Your task to perform on an android device: toggle airplane mode Image 0: 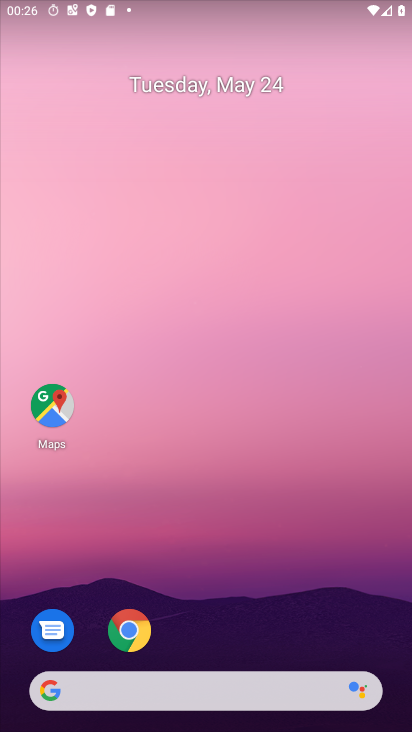
Step 0: drag from (246, 666) to (347, 1)
Your task to perform on an android device: toggle airplane mode Image 1: 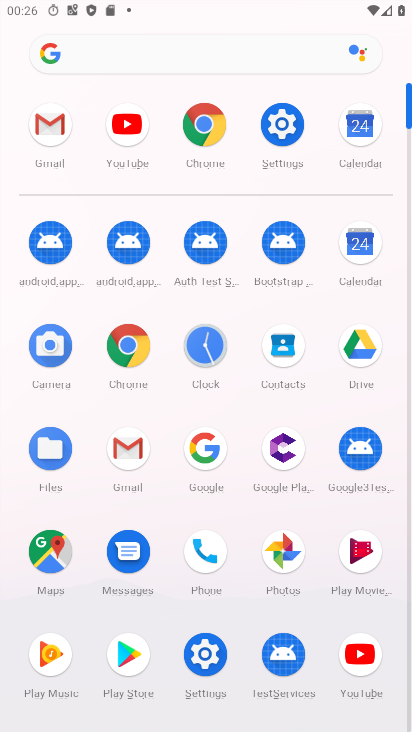
Step 1: click (277, 120)
Your task to perform on an android device: toggle airplane mode Image 2: 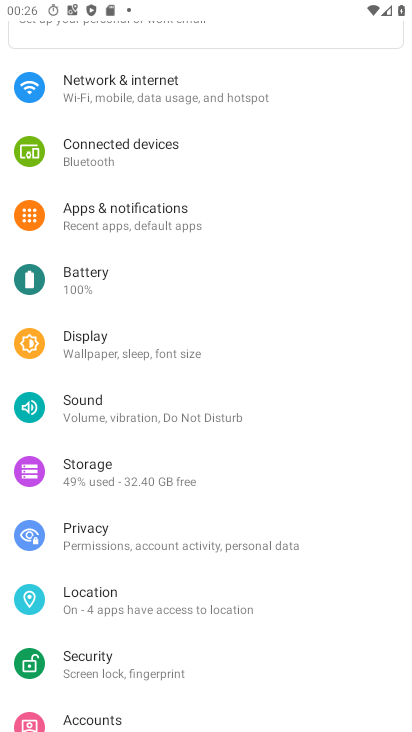
Step 2: click (151, 93)
Your task to perform on an android device: toggle airplane mode Image 3: 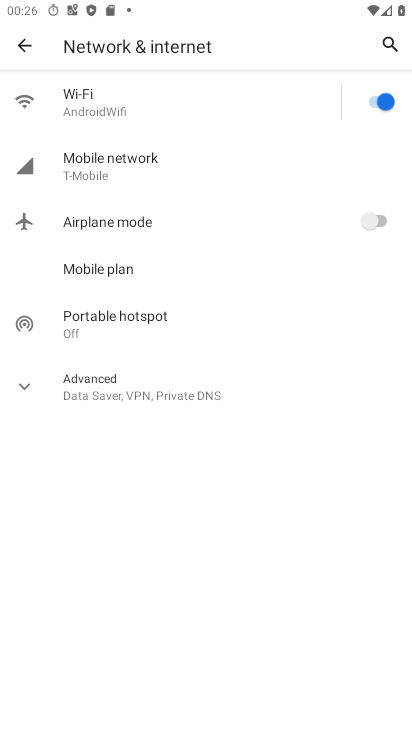
Step 3: click (375, 231)
Your task to perform on an android device: toggle airplane mode Image 4: 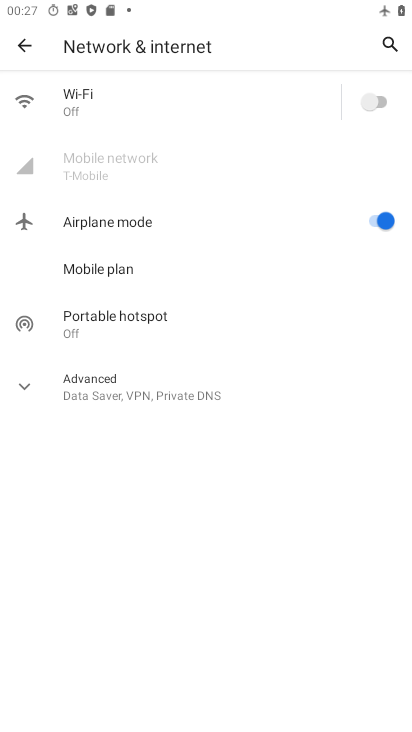
Step 4: task complete